Your task to perform on an android device: Go to Google Image 0: 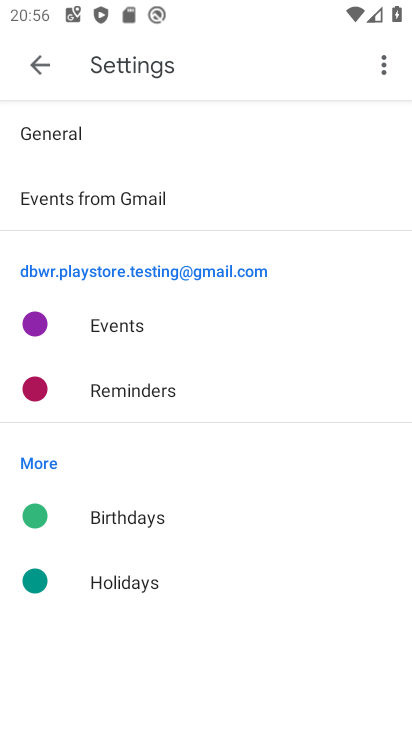
Step 0: press back button
Your task to perform on an android device: Go to Google Image 1: 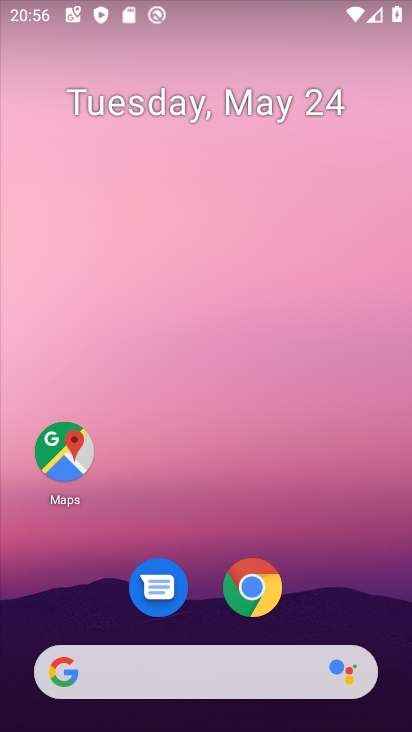
Step 1: drag from (312, 544) to (275, 5)
Your task to perform on an android device: Go to Google Image 2: 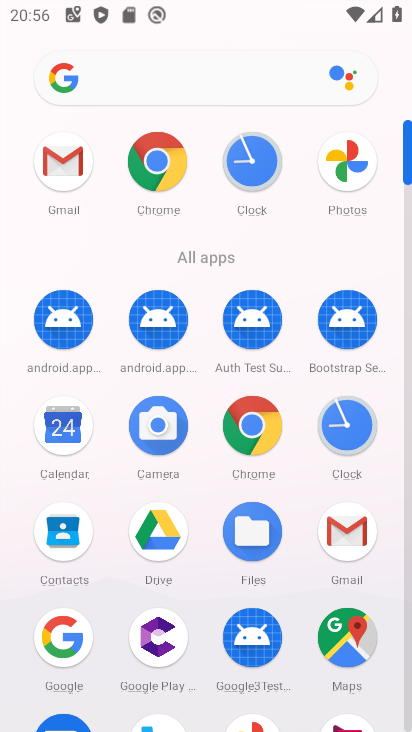
Step 2: click (155, 156)
Your task to perform on an android device: Go to Google Image 3: 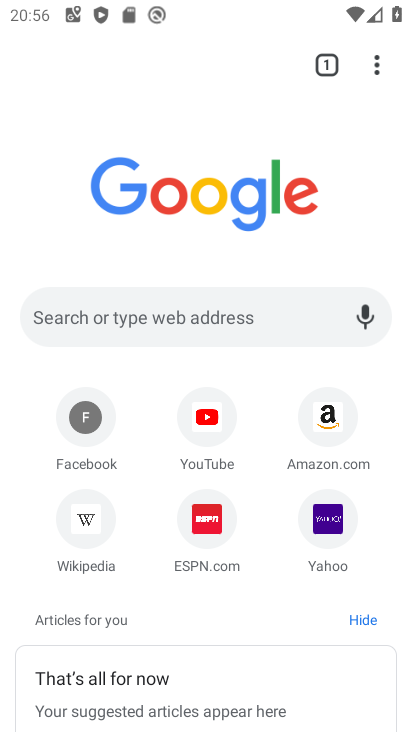
Step 3: click (165, 309)
Your task to perform on an android device: Go to Google Image 4: 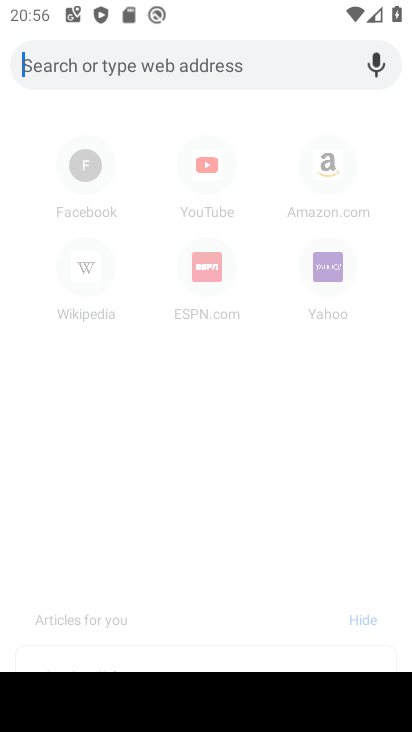
Step 4: type "Google"
Your task to perform on an android device: Go to Google Image 5: 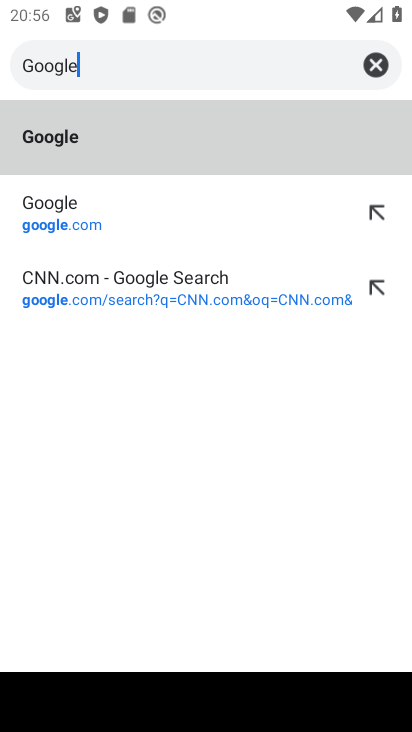
Step 5: type ""
Your task to perform on an android device: Go to Google Image 6: 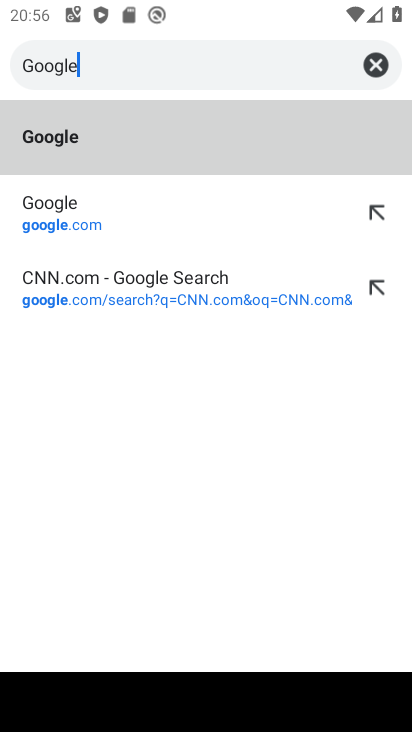
Step 6: click (76, 210)
Your task to perform on an android device: Go to Google Image 7: 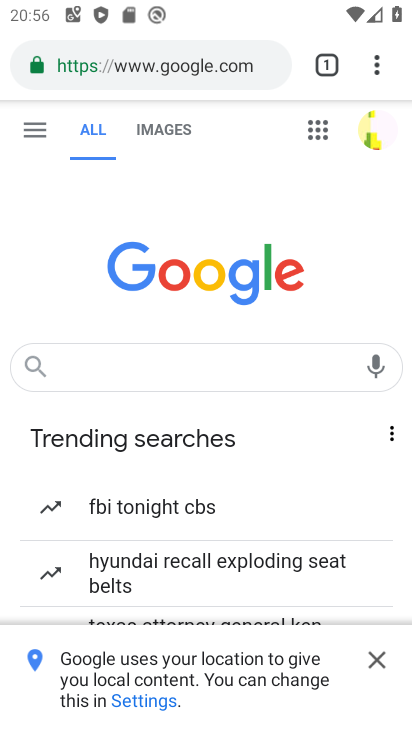
Step 7: task complete